Your task to perform on an android device: When is my next appointment? Image 0: 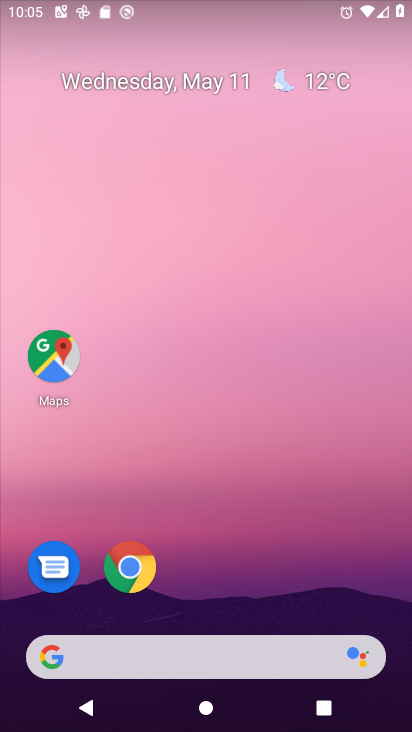
Step 0: drag from (254, 459) to (197, 50)
Your task to perform on an android device: When is my next appointment? Image 1: 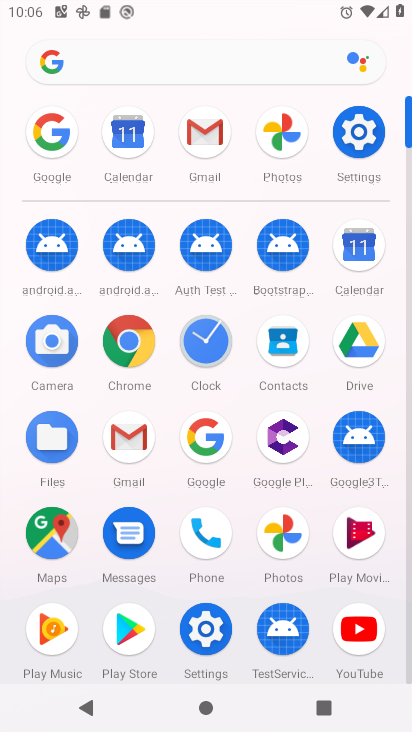
Step 1: click (363, 245)
Your task to perform on an android device: When is my next appointment? Image 2: 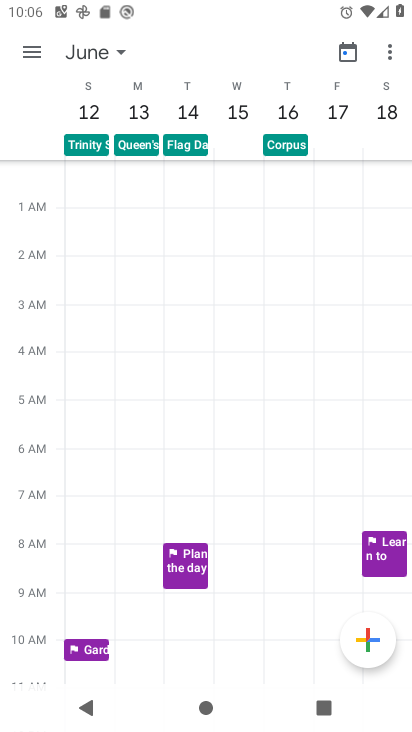
Step 2: click (122, 51)
Your task to perform on an android device: When is my next appointment? Image 3: 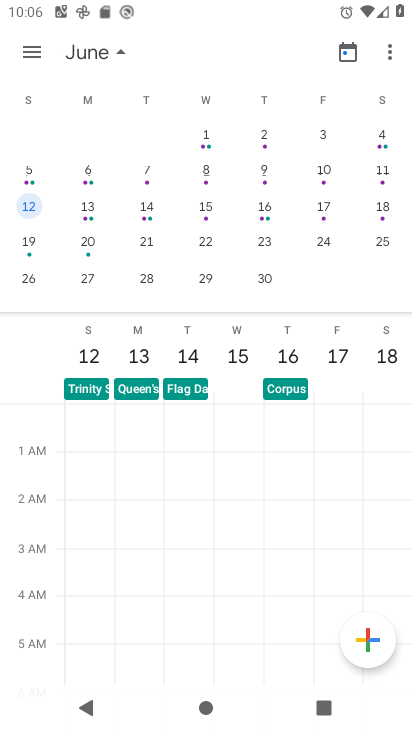
Step 3: drag from (80, 171) to (410, 183)
Your task to perform on an android device: When is my next appointment? Image 4: 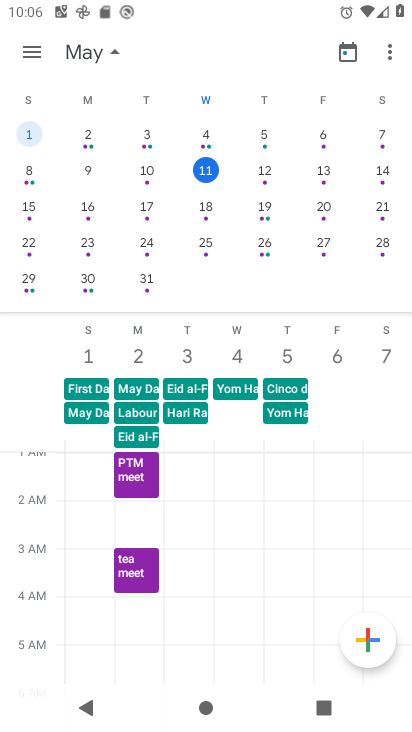
Step 4: click (32, 170)
Your task to perform on an android device: When is my next appointment? Image 5: 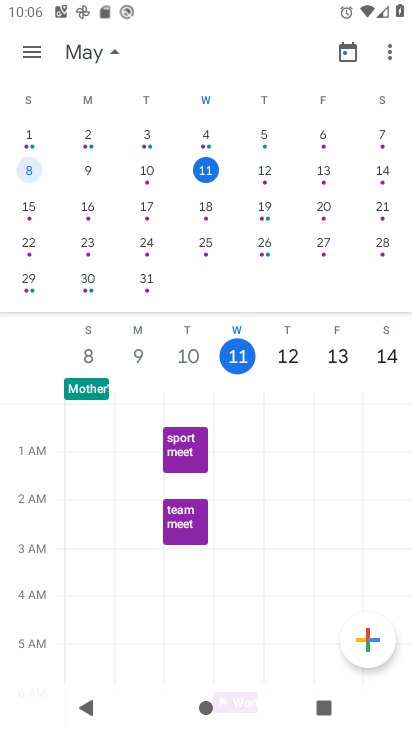
Step 5: task complete